Your task to perform on an android device: turn on sleep mode Image 0: 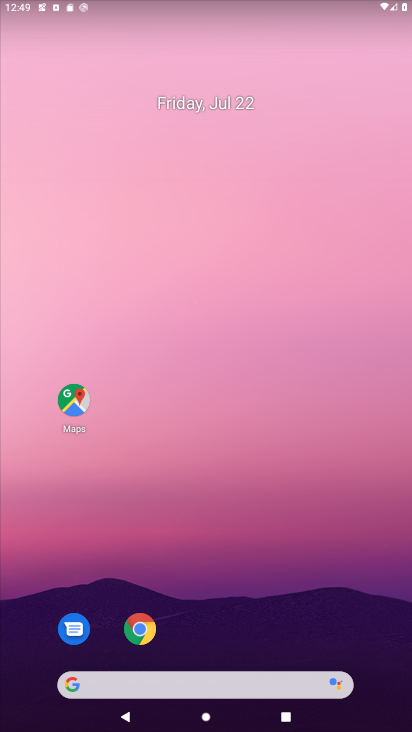
Step 0: drag from (241, 580) to (286, 80)
Your task to perform on an android device: turn on sleep mode Image 1: 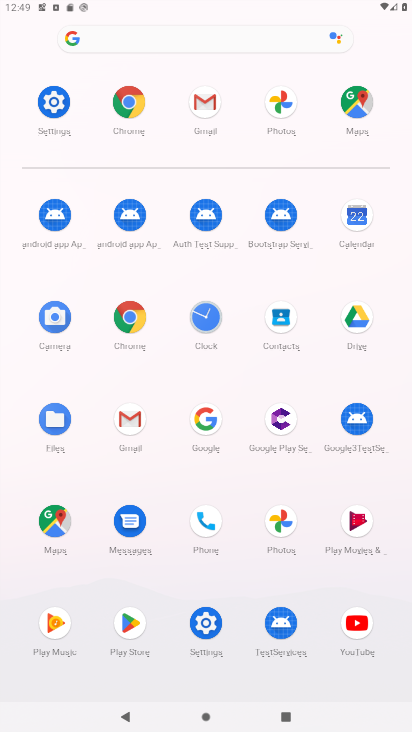
Step 1: click (198, 630)
Your task to perform on an android device: turn on sleep mode Image 2: 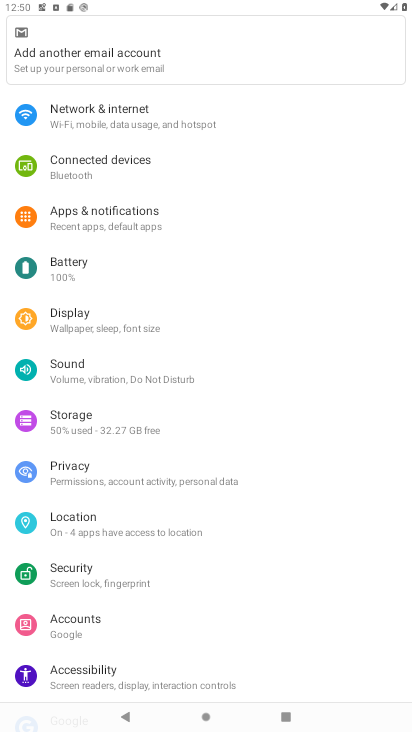
Step 2: task complete